Your task to perform on an android device: see creations saved in the google photos Image 0: 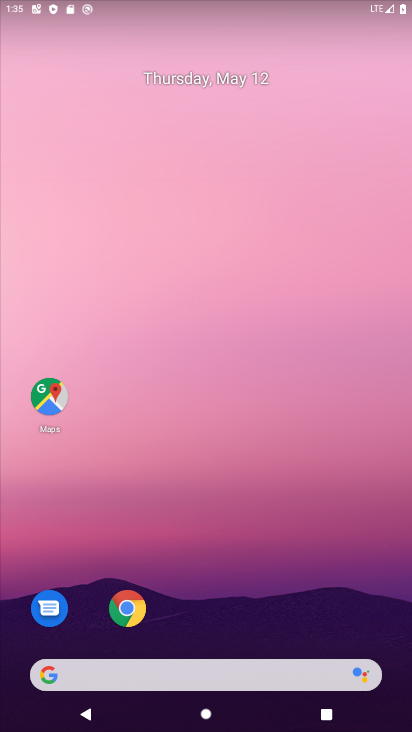
Step 0: drag from (310, 615) to (354, 19)
Your task to perform on an android device: see creations saved in the google photos Image 1: 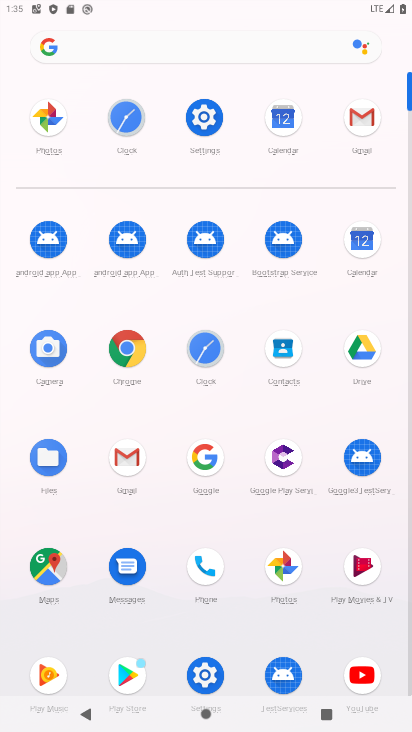
Step 1: click (48, 122)
Your task to perform on an android device: see creations saved in the google photos Image 2: 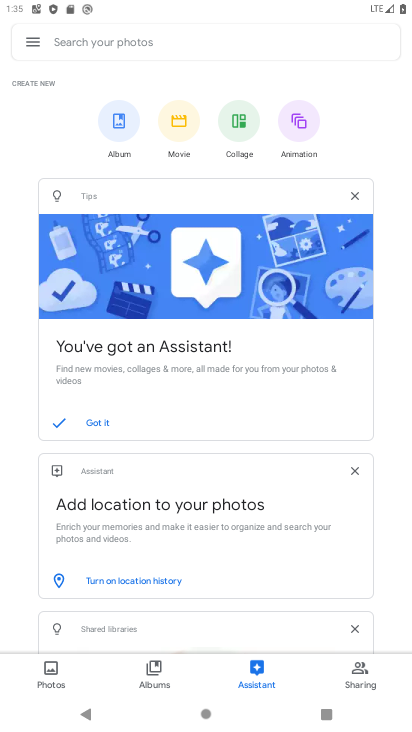
Step 2: click (58, 43)
Your task to perform on an android device: see creations saved in the google photos Image 3: 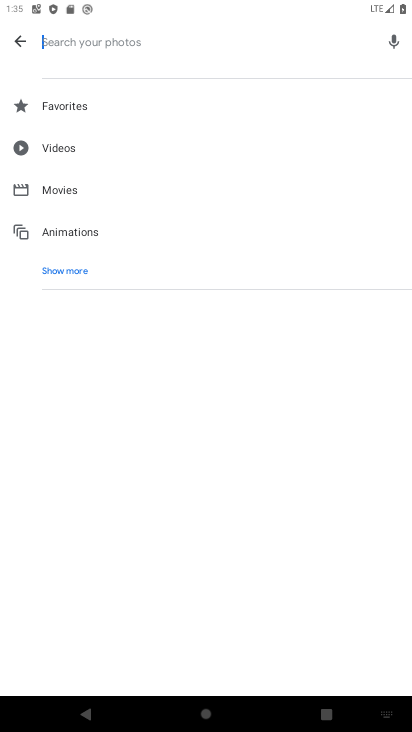
Step 3: click (59, 272)
Your task to perform on an android device: see creations saved in the google photos Image 4: 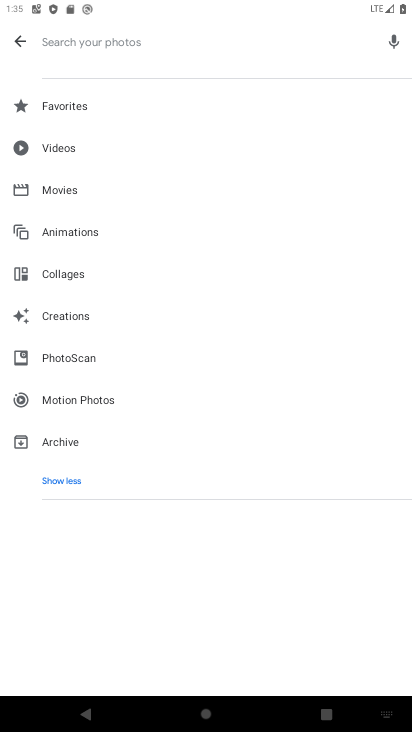
Step 4: click (65, 317)
Your task to perform on an android device: see creations saved in the google photos Image 5: 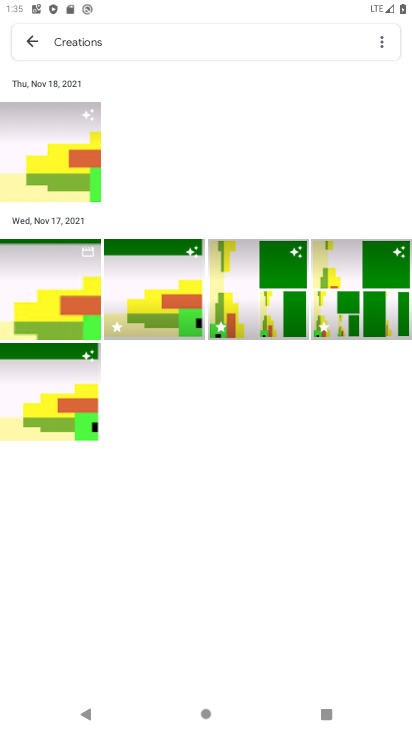
Step 5: task complete